Your task to perform on an android device: turn on airplane mode Image 0: 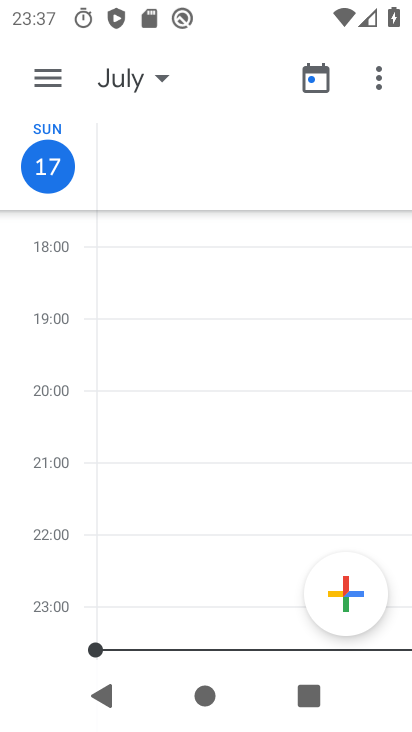
Step 0: press home button
Your task to perform on an android device: turn on airplane mode Image 1: 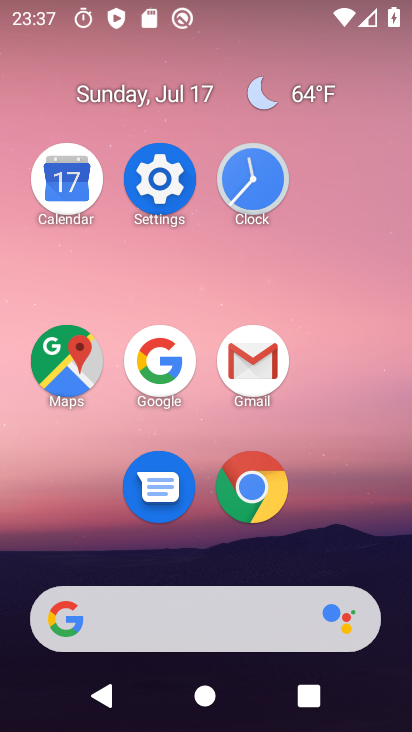
Step 1: click (164, 190)
Your task to perform on an android device: turn on airplane mode Image 2: 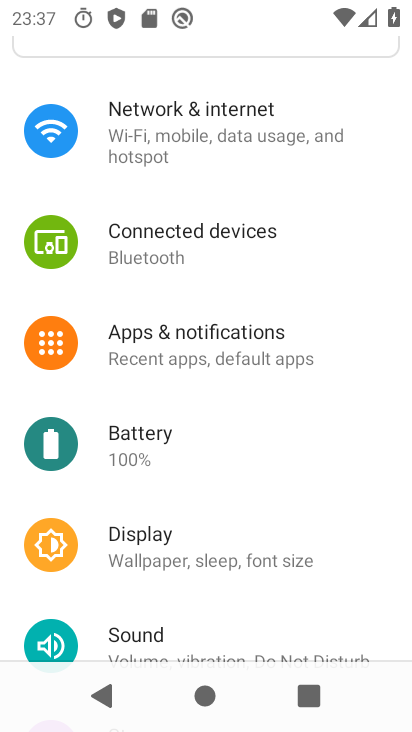
Step 2: click (184, 139)
Your task to perform on an android device: turn on airplane mode Image 3: 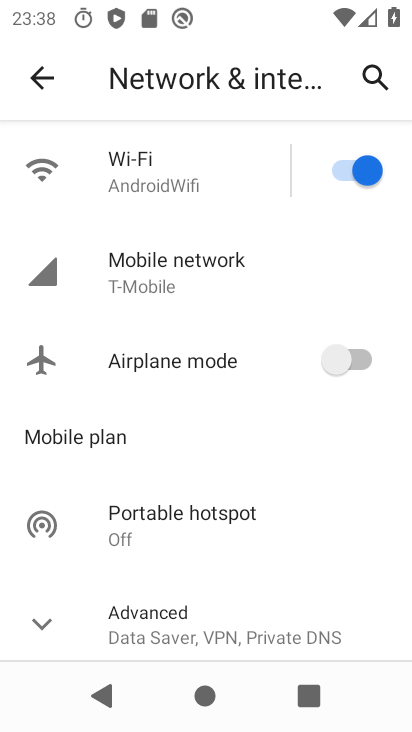
Step 3: click (333, 362)
Your task to perform on an android device: turn on airplane mode Image 4: 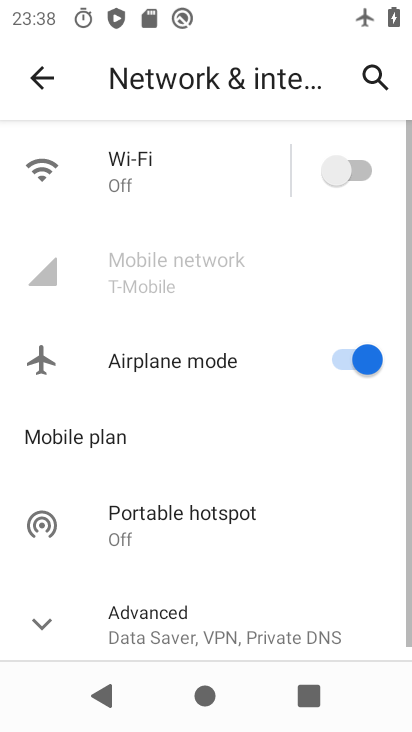
Step 4: task complete